Your task to perform on an android device: Check the weather Image 0: 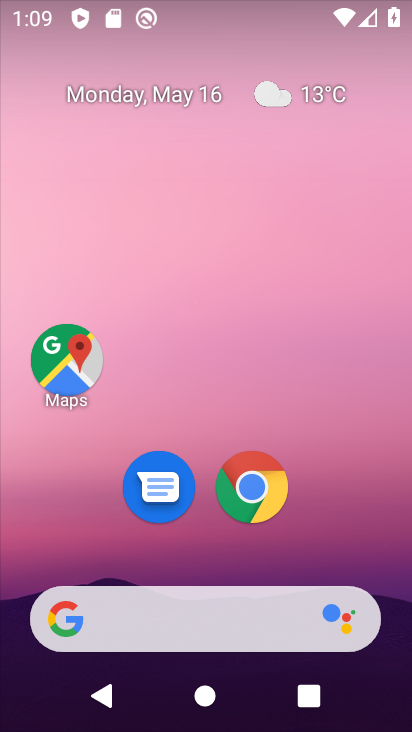
Step 0: click (327, 89)
Your task to perform on an android device: Check the weather Image 1: 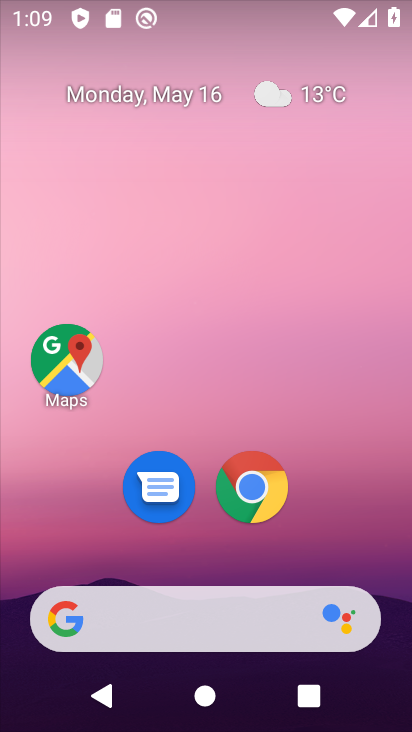
Step 1: click (327, 89)
Your task to perform on an android device: Check the weather Image 2: 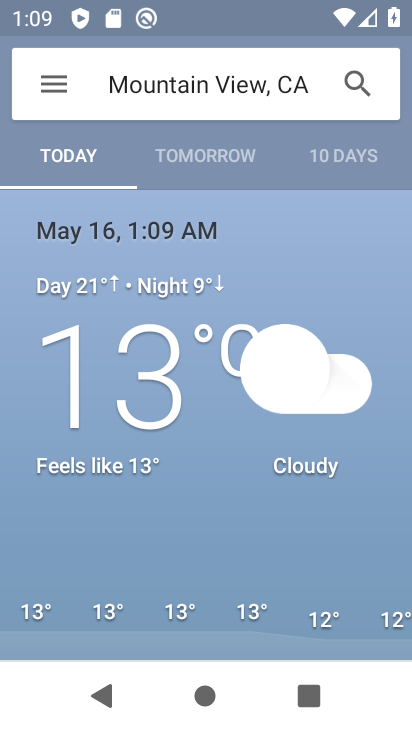
Step 2: task complete